Your task to perform on an android device: Open Android settings Image 0: 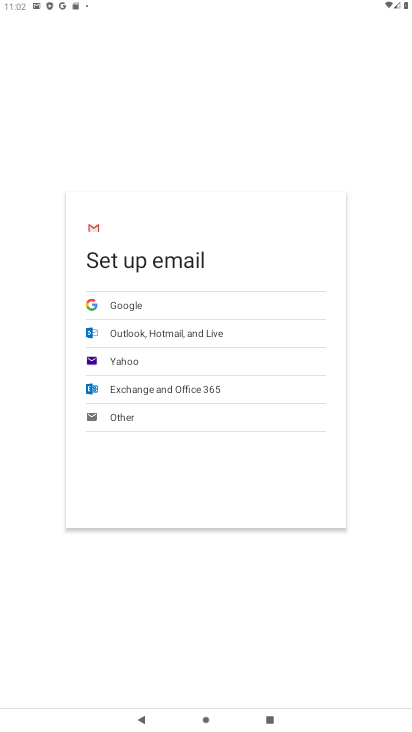
Step 0: press home button
Your task to perform on an android device: Open Android settings Image 1: 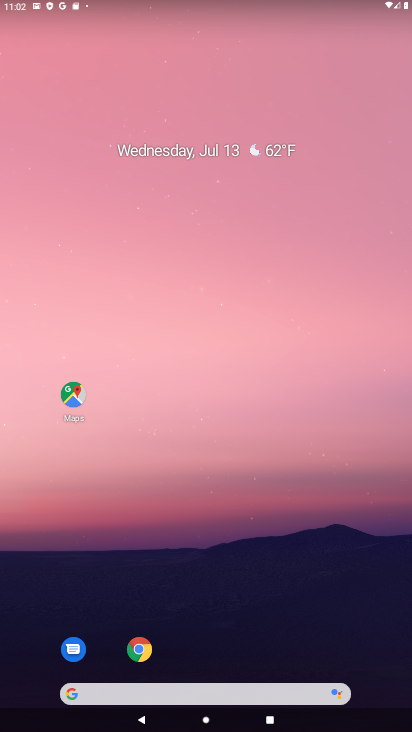
Step 1: drag from (383, 381) to (300, 20)
Your task to perform on an android device: Open Android settings Image 2: 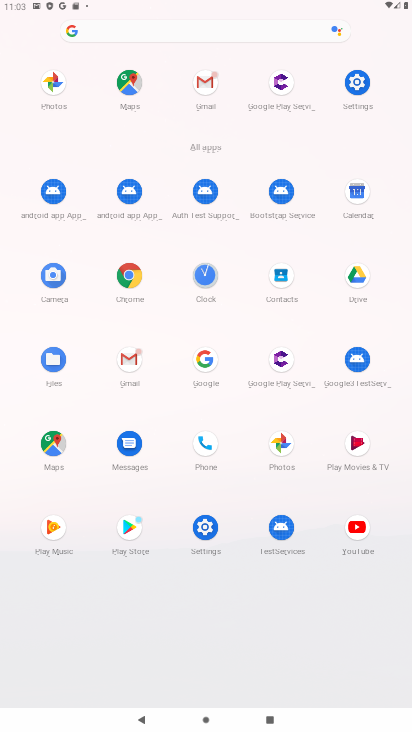
Step 2: click (209, 525)
Your task to perform on an android device: Open Android settings Image 3: 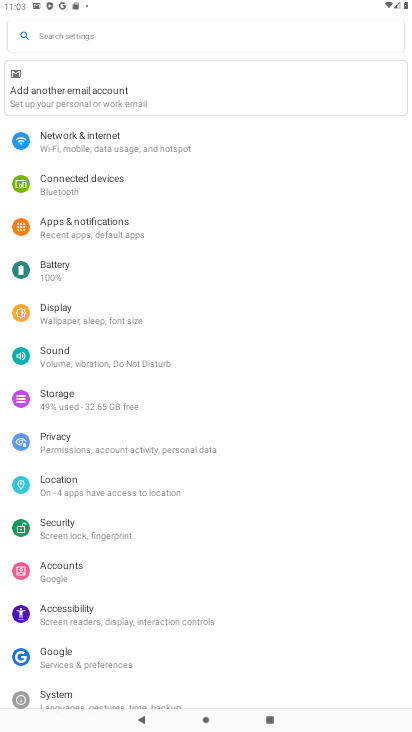
Step 3: task complete